Your task to perform on an android device: open app "Spotify" Image 0: 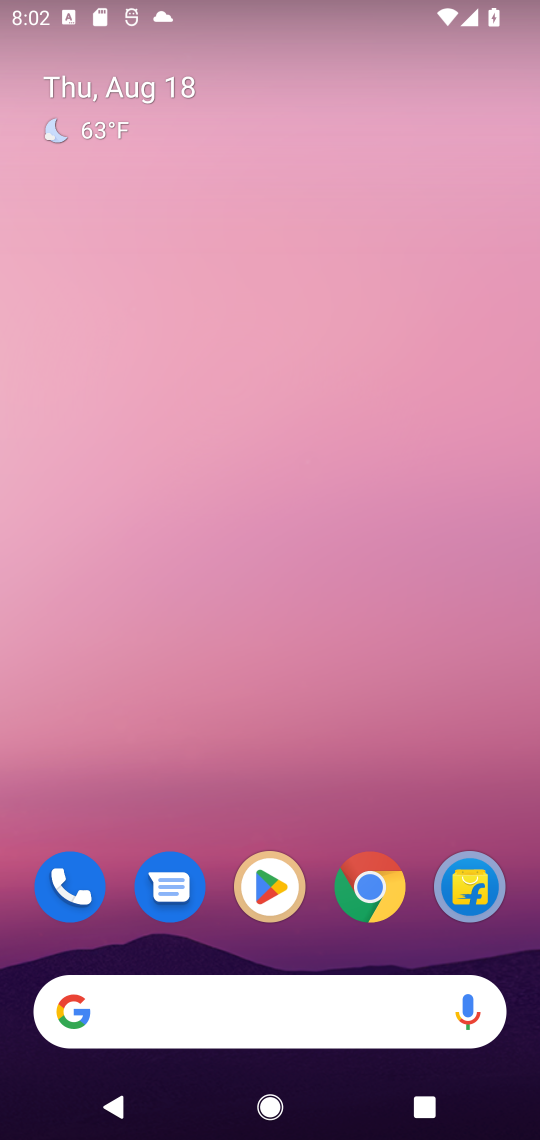
Step 0: click (262, 880)
Your task to perform on an android device: open app "Spotify" Image 1: 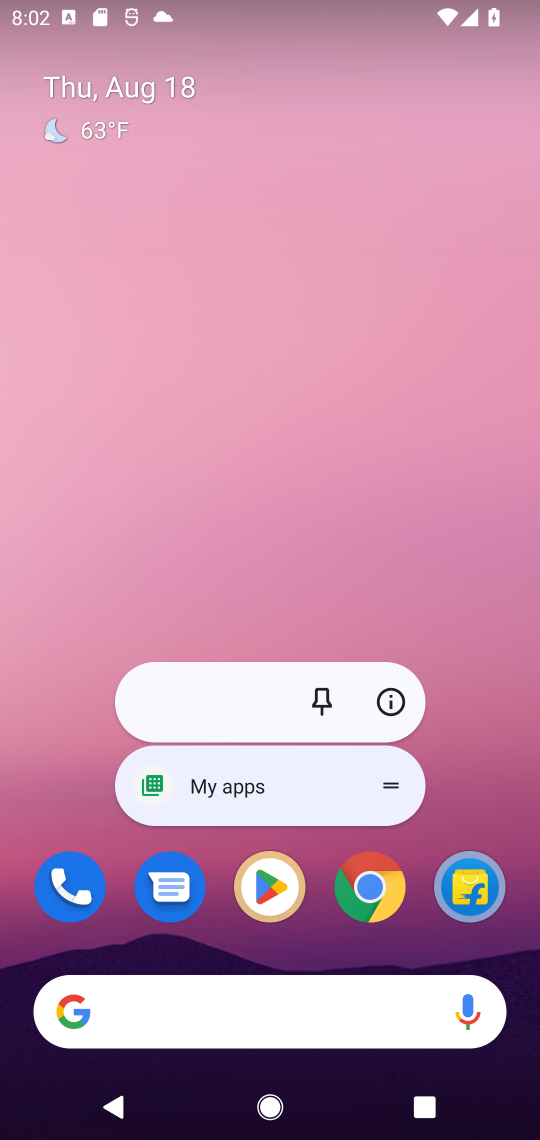
Step 1: click (265, 892)
Your task to perform on an android device: open app "Spotify" Image 2: 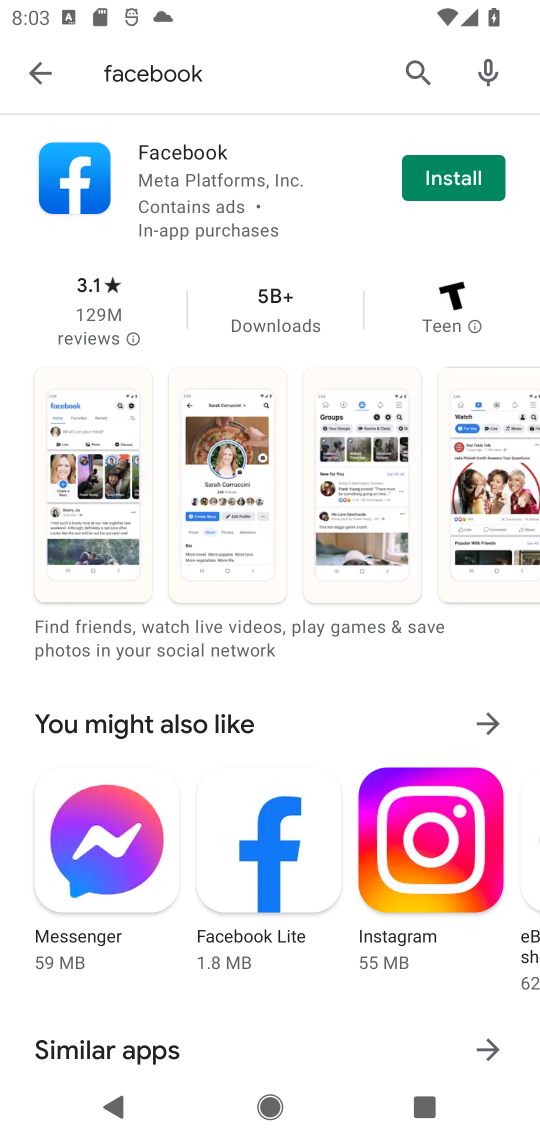
Step 2: click (405, 70)
Your task to perform on an android device: open app "Spotify" Image 3: 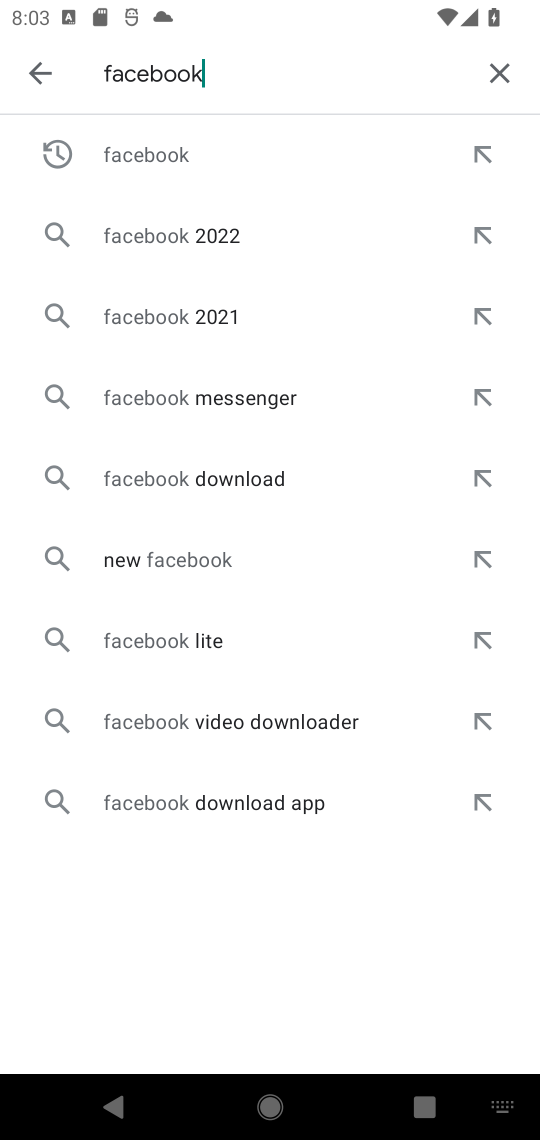
Step 3: click (495, 66)
Your task to perform on an android device: open app "Spotify" Image 4: 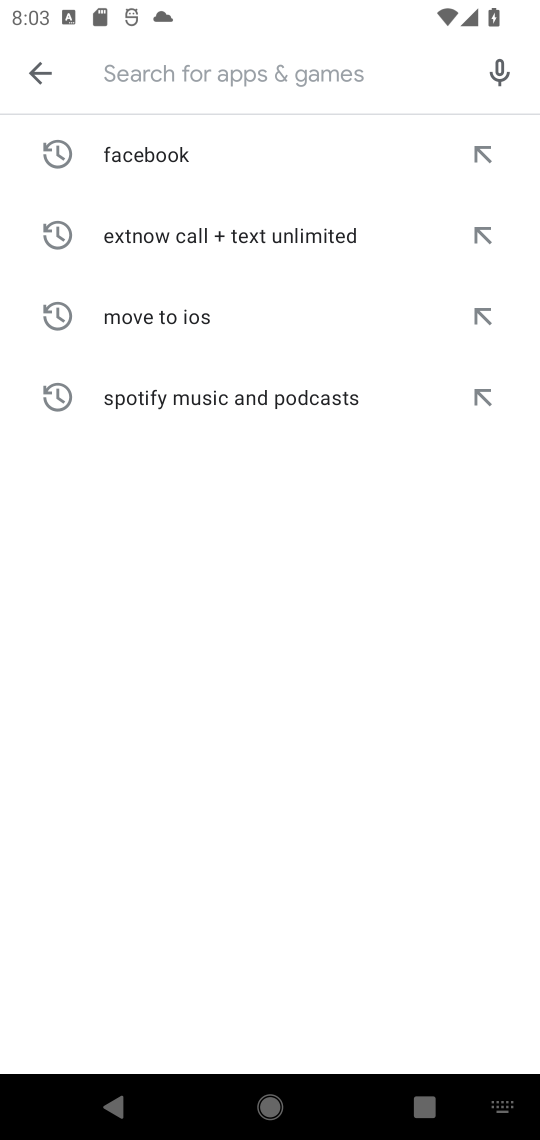
Step 4: type "Spotify"
Your task to perform on an android device: open app "Spotify" Image 5: 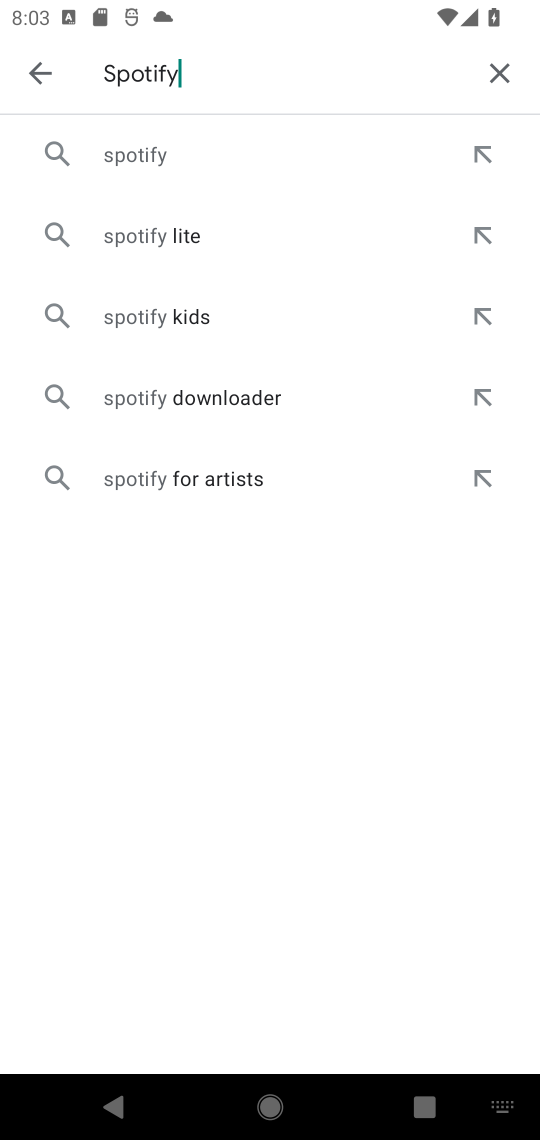
Step 5: click (128, 148)
Your task to perform on an android device: open app "Spotify" Image 6: 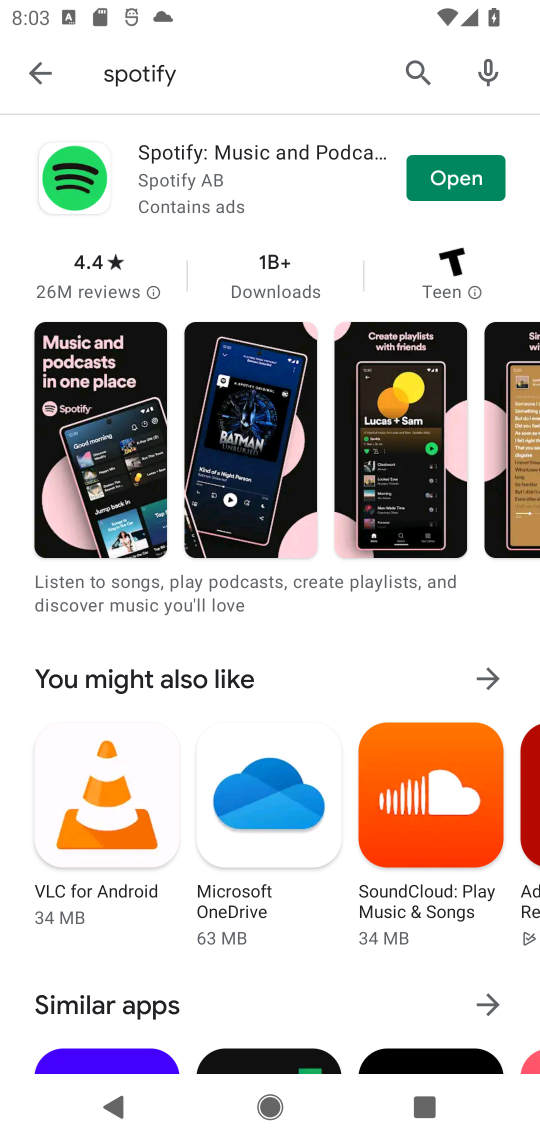
Step 6: click (456, 183)
Your task to perform on an android device: open app "Spotify" Image 7: 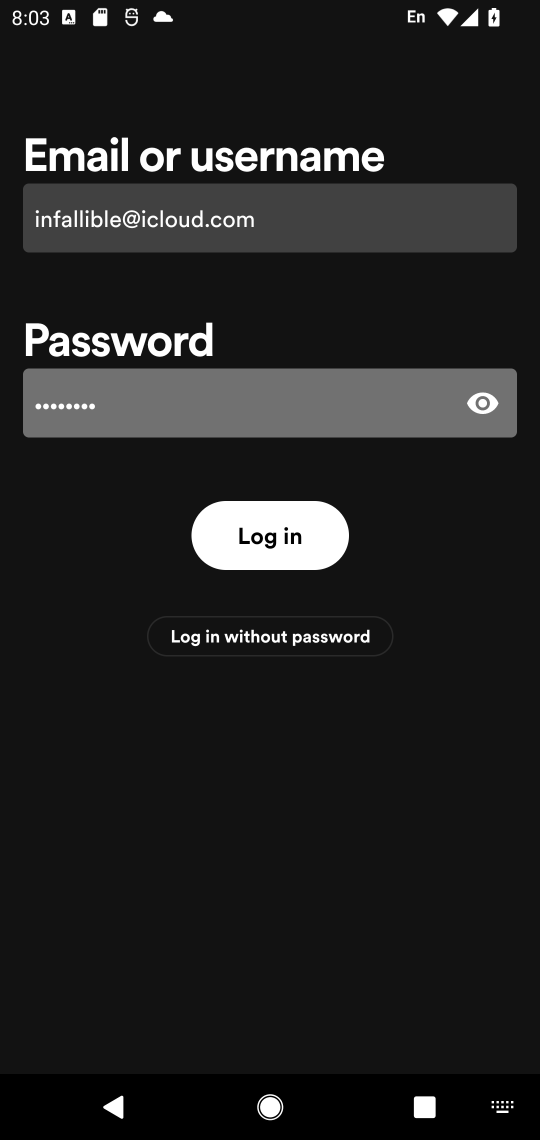
Step 7: task complete